Your task to perform on an android device: turn off notifications settings in the gmail app Image 0: 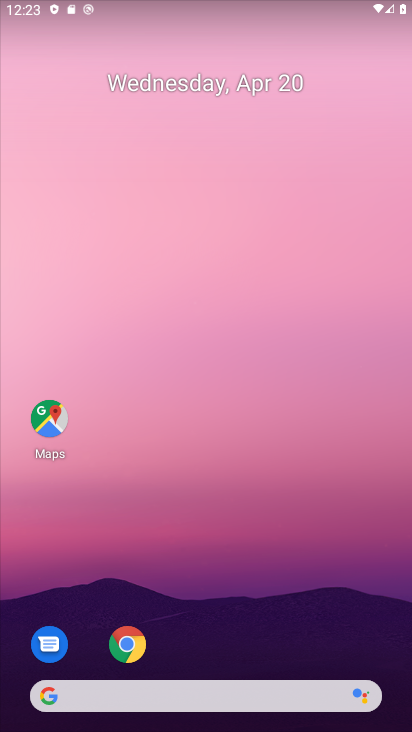
Step 0: drag from (218, 630) to (207, 6)
Your task to perform on an android device: turn off notifications settings in the gmail app Image 1: 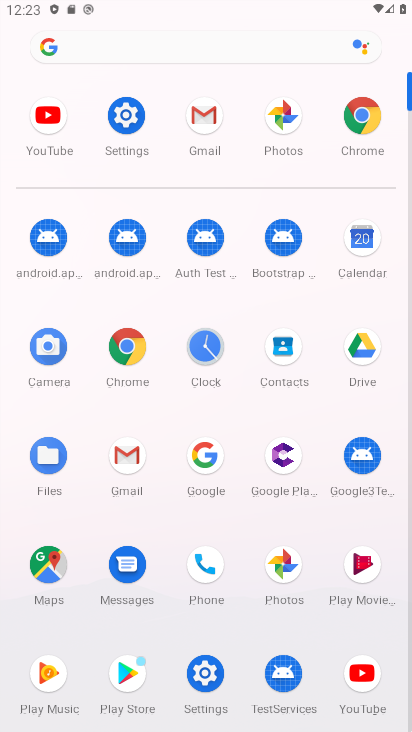
Step 1: click (209, 106)
Your task to perform on an android device: turn off notifications settings in the gmail app Image 2: 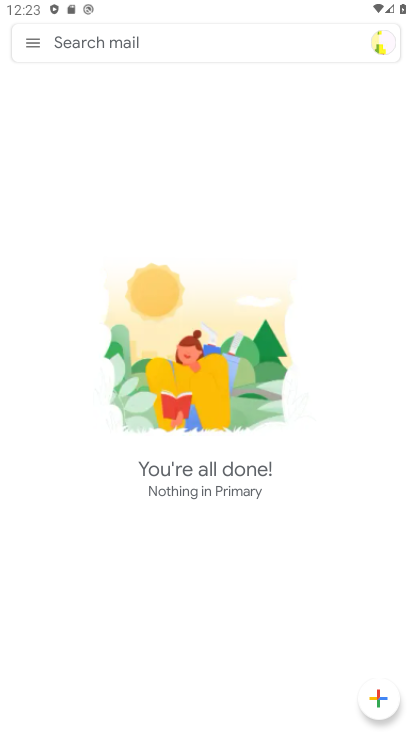
Step 2: click (35, 44)
Your task to perform on an android device: turn off notifications settings in the gmail app Image 3: 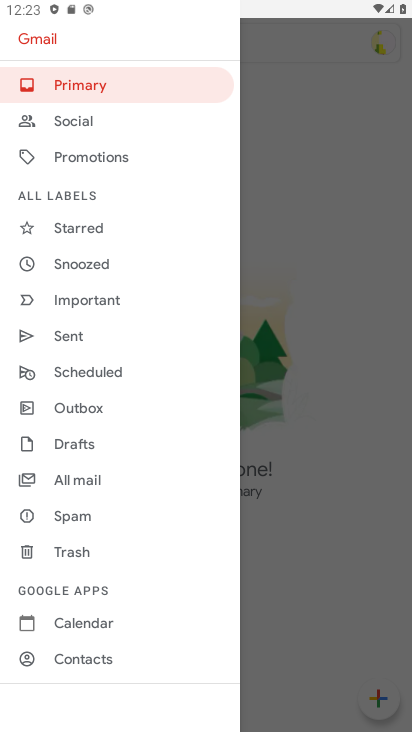
Step 3: drag from (122, 621) to (136, 431)
Your task to perform on an android device: turn off notifications settings in the gmail app Image 4: 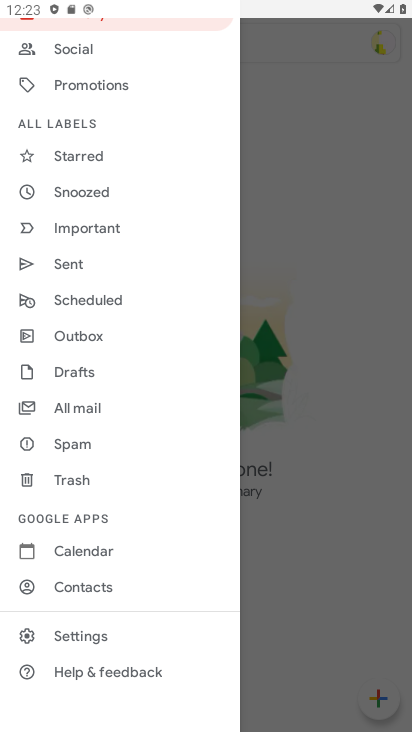
Step 4: click (89, 631)
Your task to perform on an android device: turn off notifications settings in the gmail app Image 5: 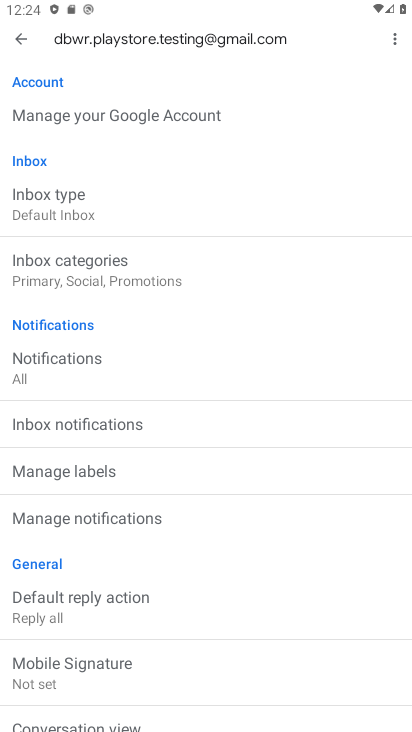
Step 5: click (145, 515)
Your task to perform on an android device: turn off notifications settings in the gmail app Image 6: 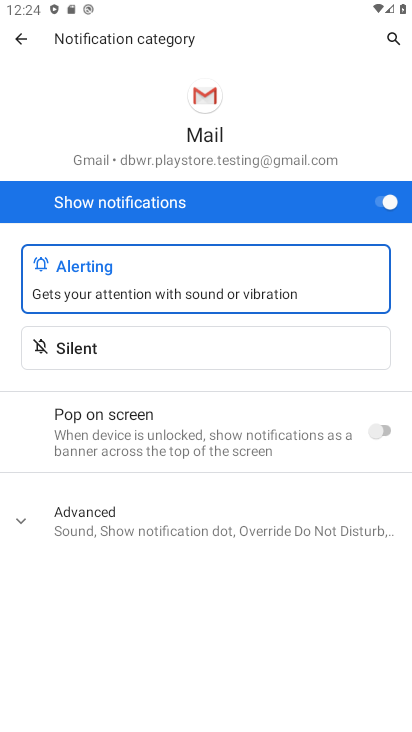
Step 6: click (382, 195)
Your task to perform on an android device: turn off notifications settings in the gmail app Image 7: 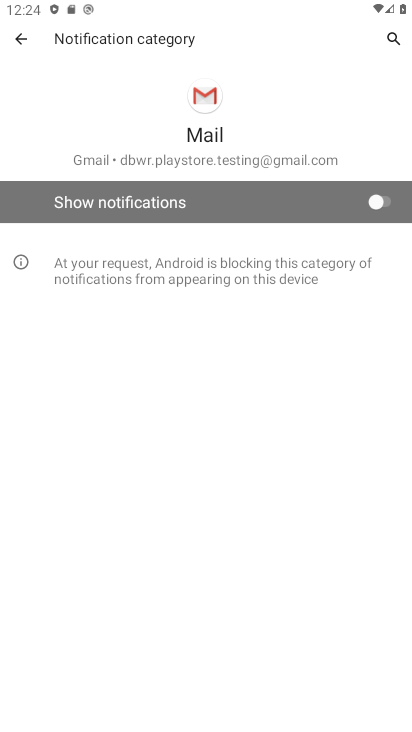
Step 7: task complete